Your task to perform on an android device: choose inbox layout in the gmail app Image 0: 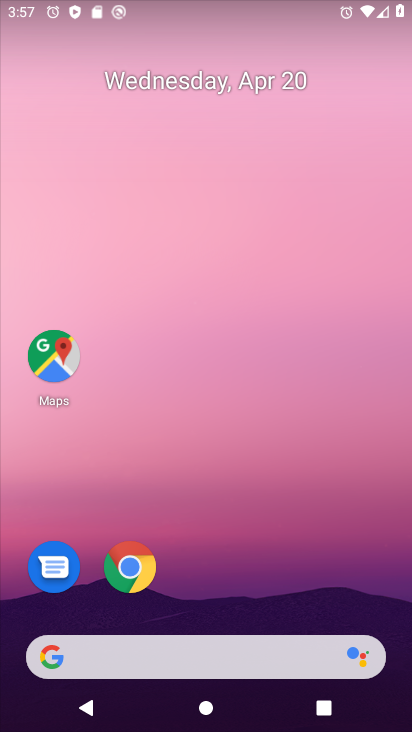
Step 0: drag from (322, 592) to (243, 134)
Your task to perform on an android device: choose inbox layout in the gmail app Image 1: 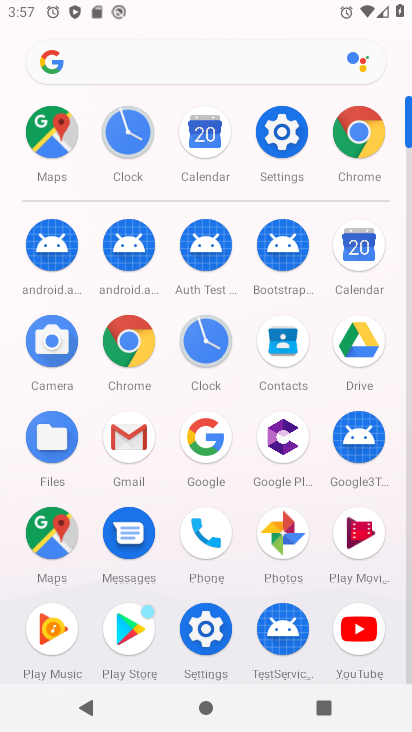
Step 1: click (127, 445)
Your task to perform on an android device: choose inbox layout in the gmail app Image 2: 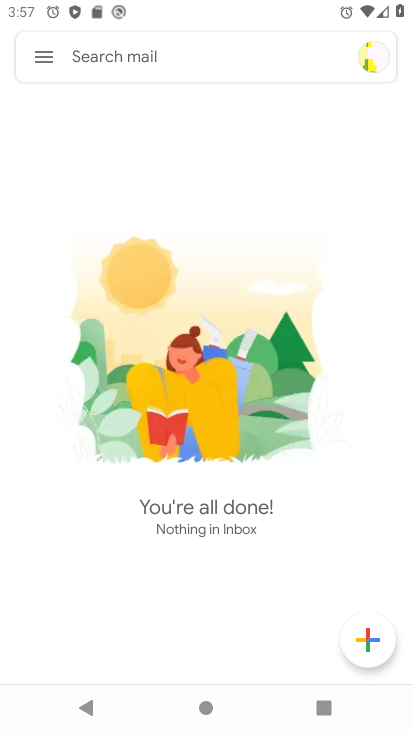
Step 2: click (38, 52)
Your task to perform on an android device: choose inbox layout in the gmail app Image 3: 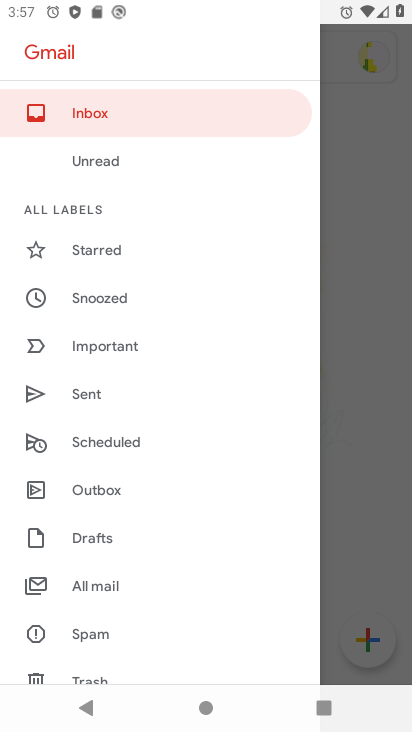
Step 3: drag from (205, 616) to (193, 194)
Your task to perform on an android device: choose inbox layout in the gmail app Image 4: 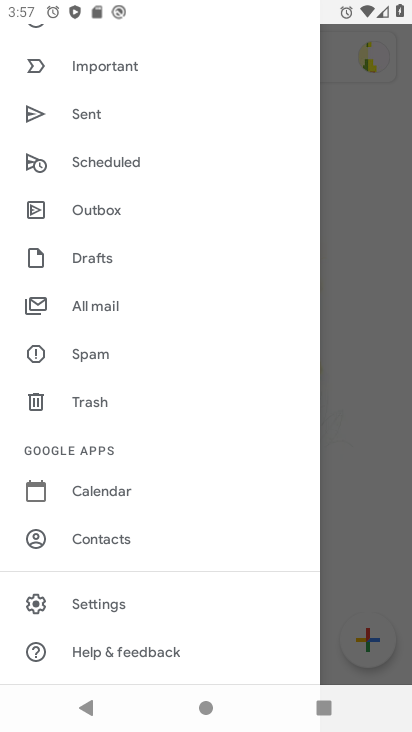
Step 4: click (175, 619)
Your task to perform on an android device: choose inbox layout in the gmail app Image 5: 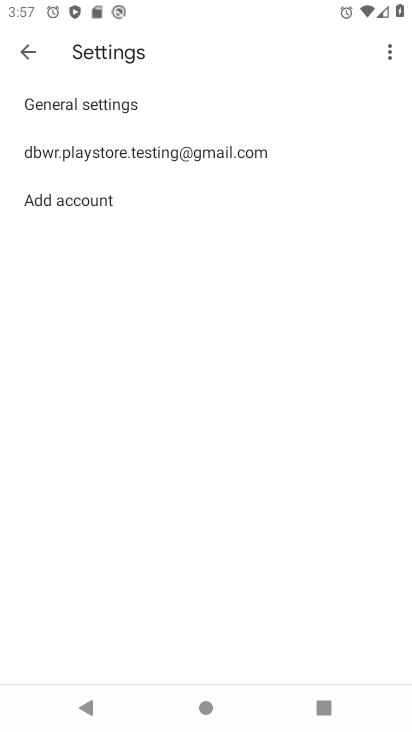
Step 5: click (262, 152)
Your task to perform on an android device: choose inbox layout in the gmail app Image 6: 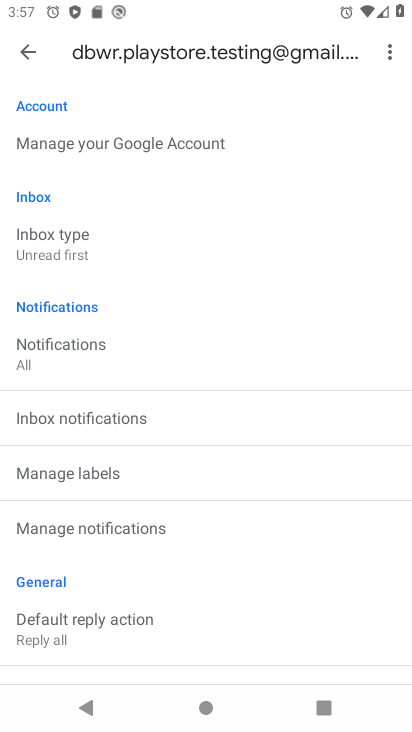
Step 6: click (267, 241)
Your task to perform on an android device: choose inbox layout in the gmail app Image 7: 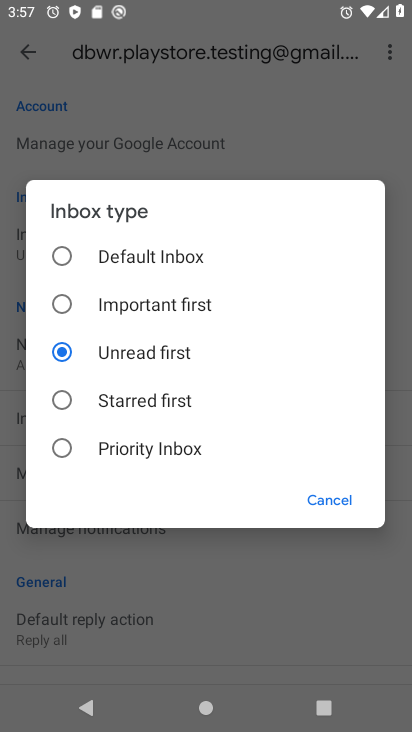
Step 7: click (254, 298)
Your task to perform on an android device: choose inbox layout in the gmail app Image 8: 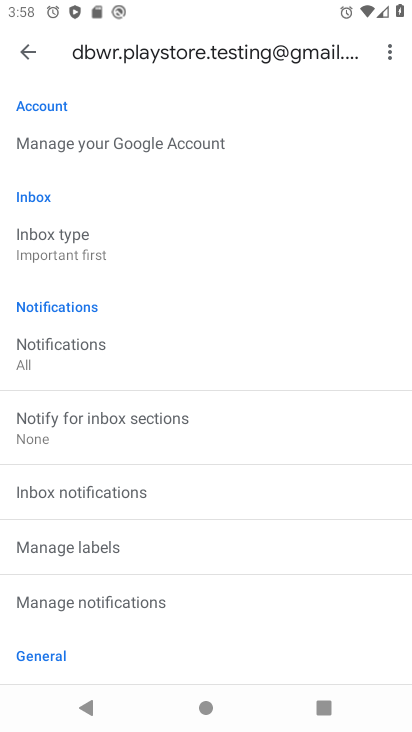
Step 8: task complete